Your task to perform on an android device: Open internet settings Image 0: 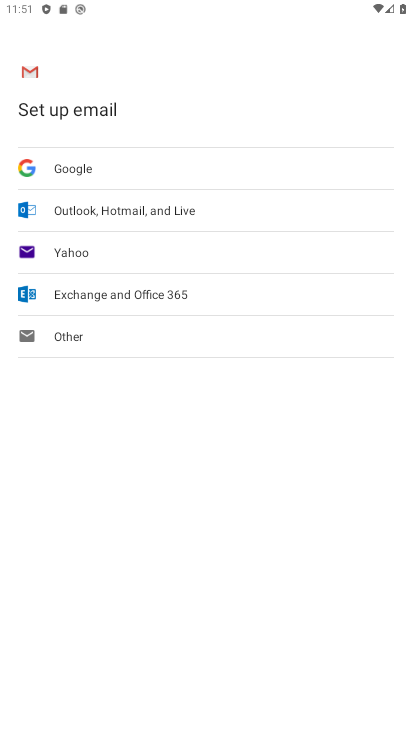
Step 0: press home button
Your task to perform on an android device: Open internet settings Image 1: 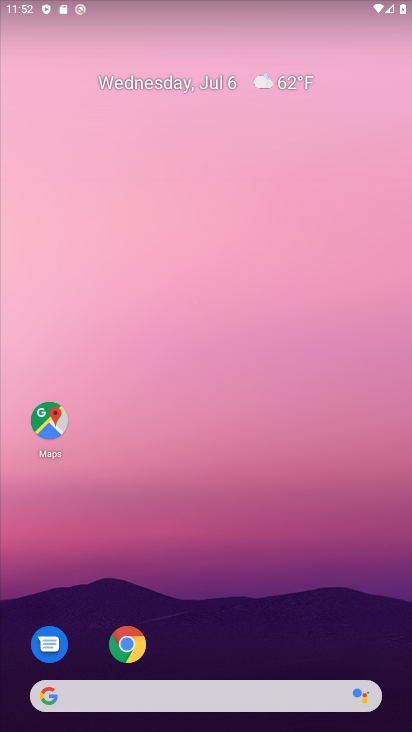
Step 1: drag from (10, 717) to (304, 64)
Your task to perform on an android device: Open internet settings Image 2: 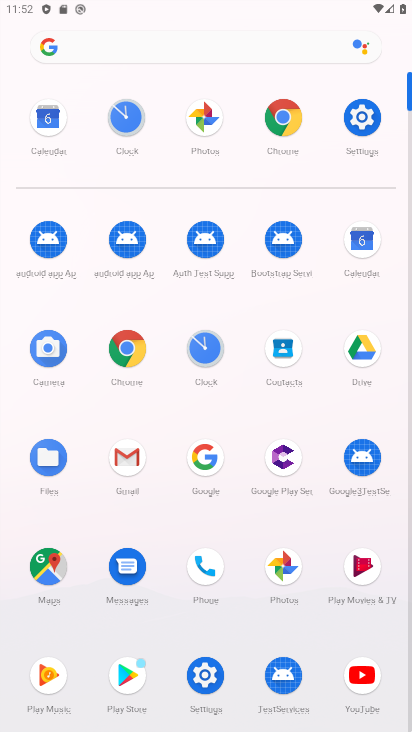
Step 2: click (364, 124)
Your task to perform on an android device: Open internet settings Image 3: 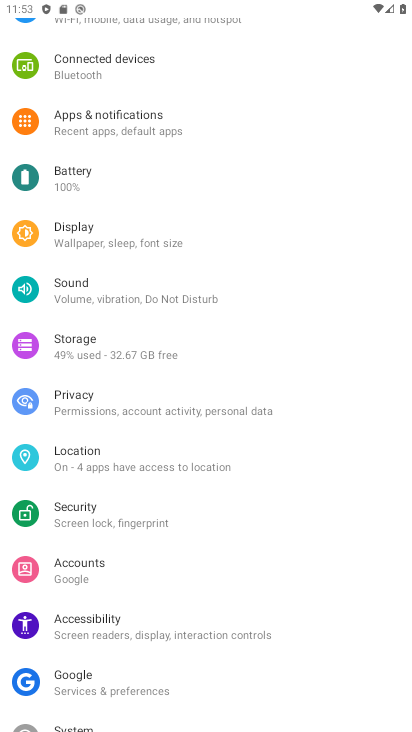
Step 3: drag from (205, 106) to (253, 526)
Your task to perform on an android device: Open internet settings Image 4: 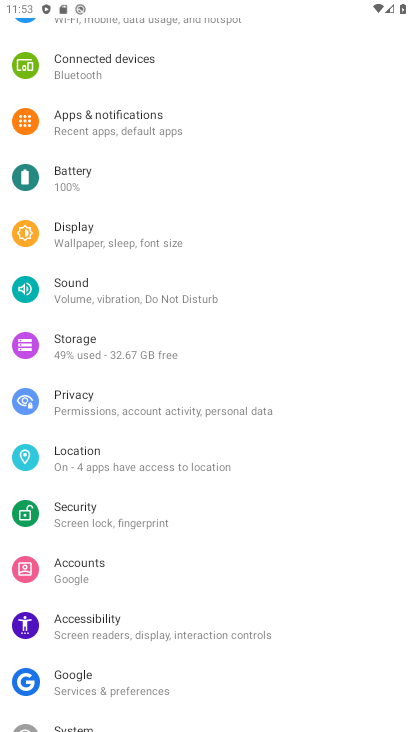
Step 4: drag from (54, 69) to (83, 654)
Your task to perform on an android device: Open internet settings Image 5: 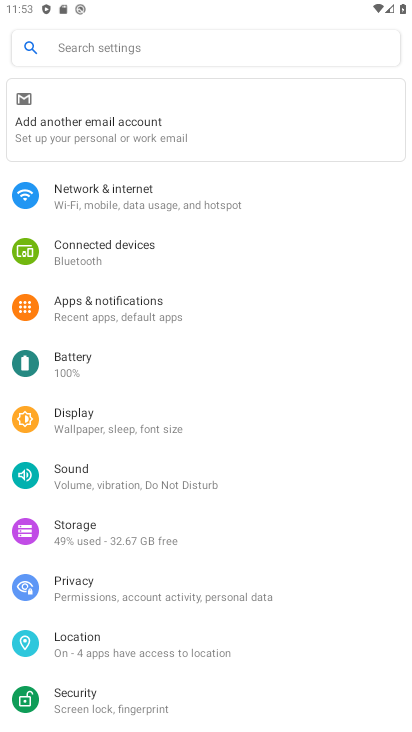
Step 5: click (159, 209)
Your task to perform on an android device: Open internet settings Image 6: 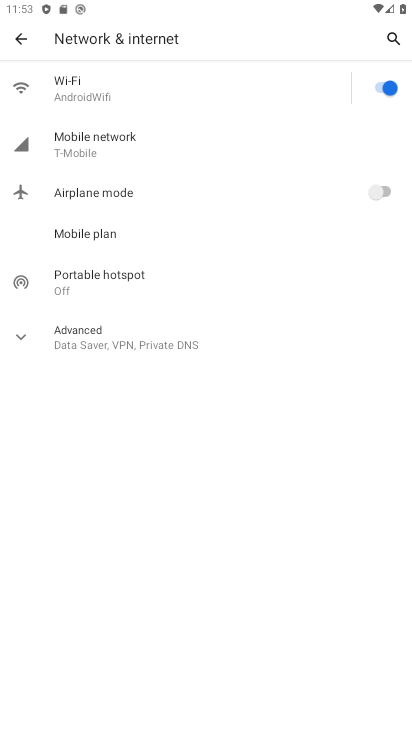
Step 6: click (181, 131)
Your task to perform on an android device: Open internet settings Image 7: 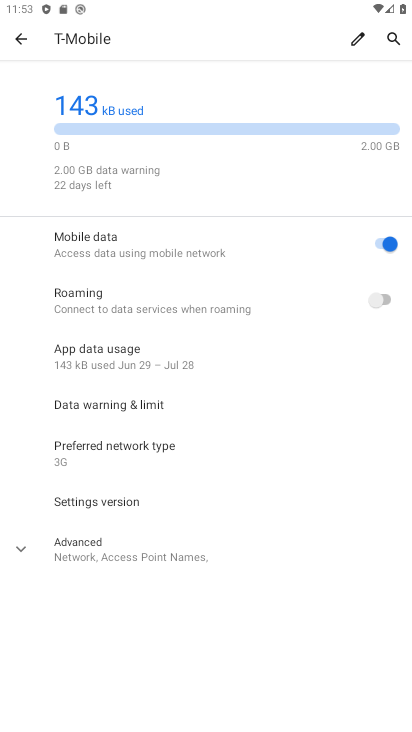
Step 7: task complete